Your task to perform on an android device: toggle notification dots Image 0: 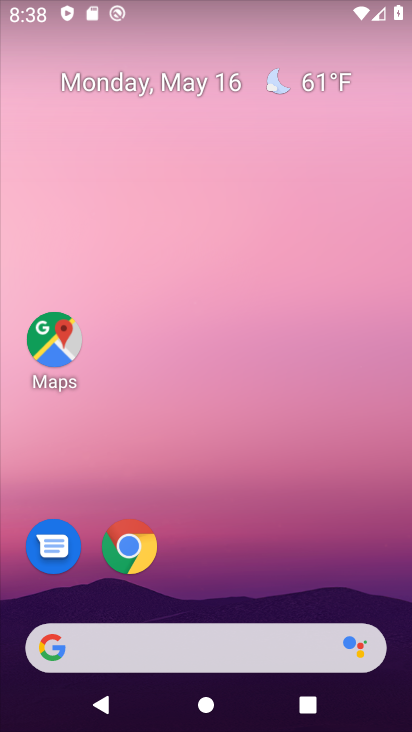
Step 0: drag from (322, 566) to (237, 193)
Your task to perform on an android device: toggle notification dots Image 1: 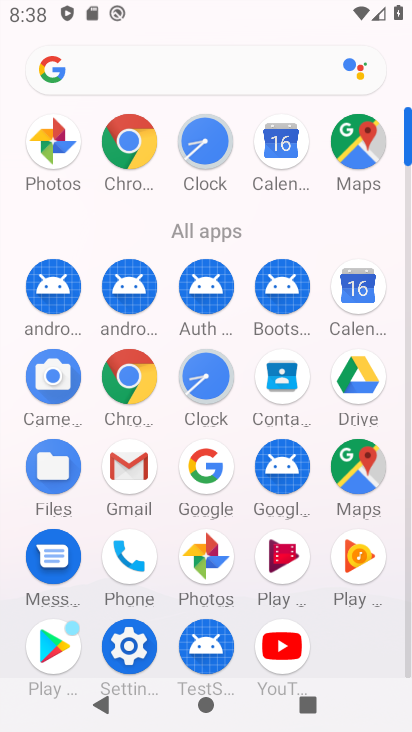
Step 1: click (130, 650)
Your task to perform on an android device: toggle notification dots Image 2: 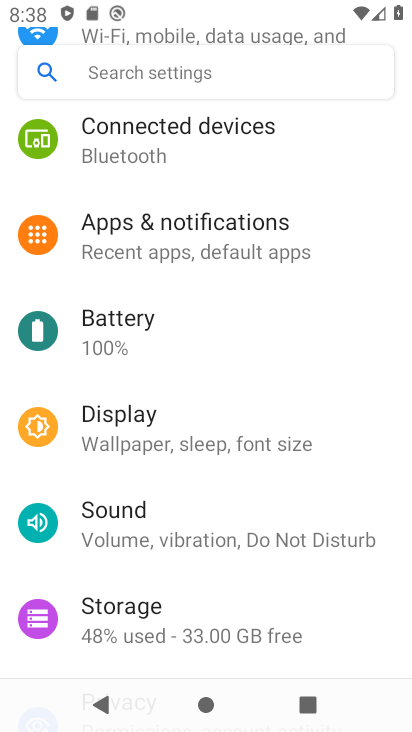
Step 2: click (180, 233)
Your task to perform on an android device: toggle notification dots Image 3: 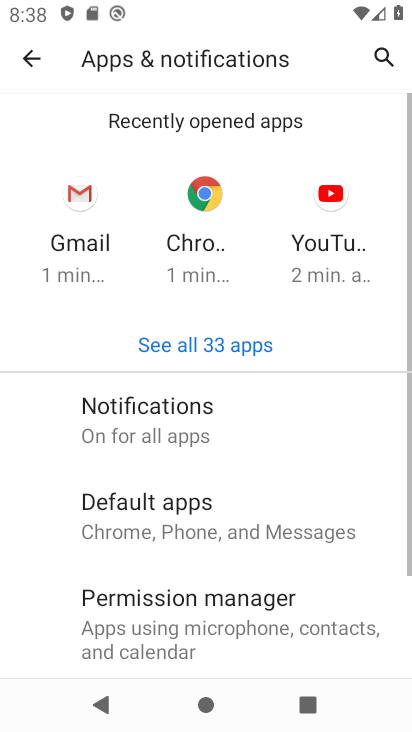
Step 3: click (212, 410)
Your task to perform on an android device: toggle notification dots Image 4: 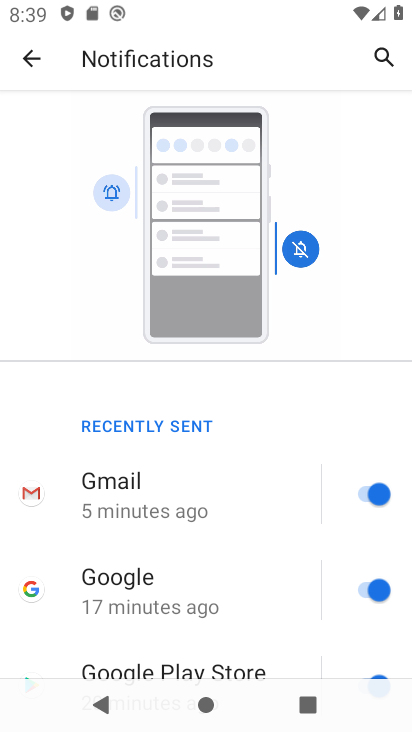
Step 4: drag from (242, 421) to (122, 209)
Your task to perform on an android device: toggle notification dots Image 5: 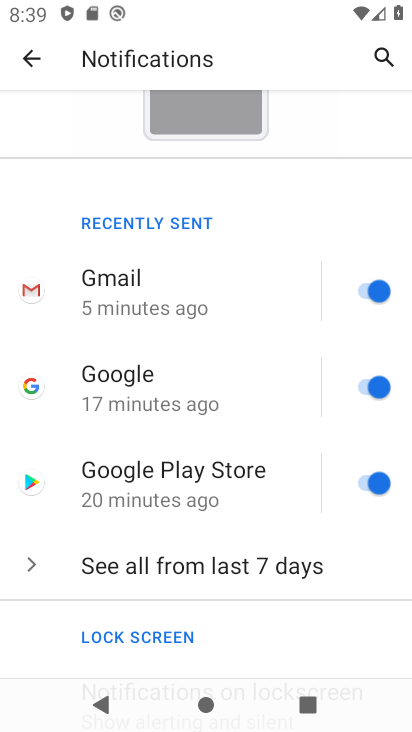
Step 5: drag from (171, 606) to (136, 396)
Your task to perform on an android device: toggle notification dots Image 6: 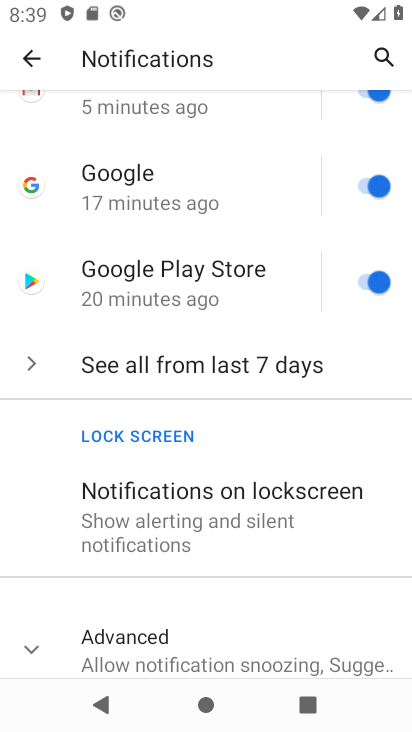
Step 6: click (151, 629)
Your task to perform on an android device: toggle notification dots Image 7: 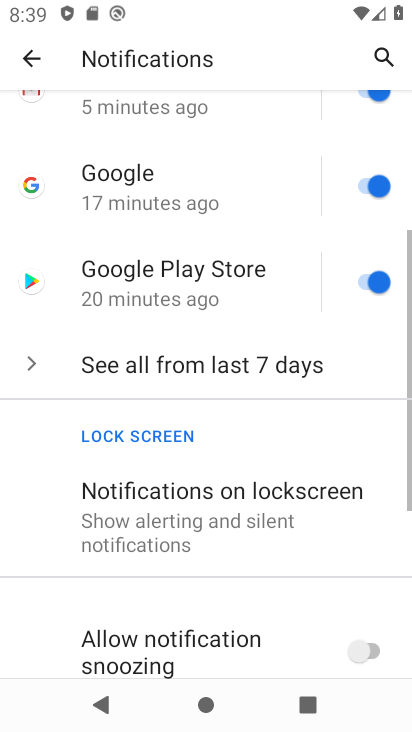
Step 7: drag from (200, 598) to (133, 232)
Your task to perform on an android device: toggle notification dots Image 8: 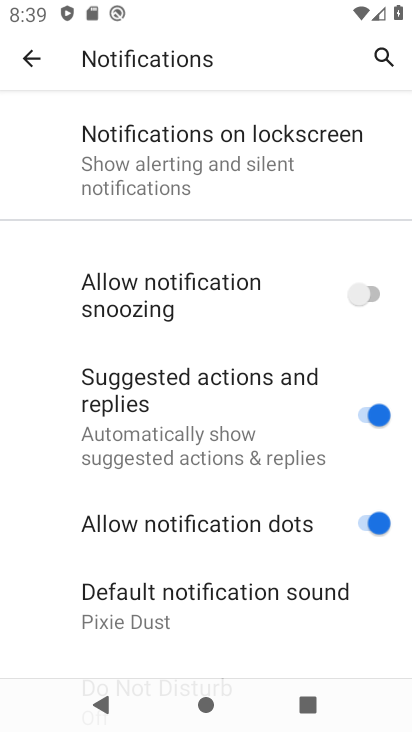
Step 8: click (268, 527)
Your task to perform on an android device: toggle notification dots Image 9: 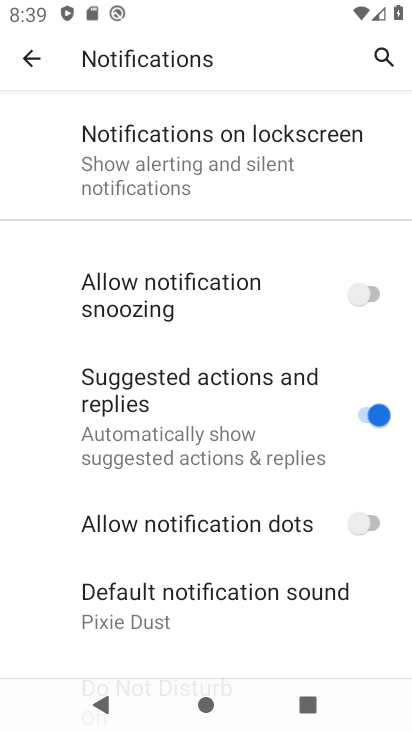
Step 9: task complete